Your task to perform on an android device: Find coffee shops on Maps Image 0: 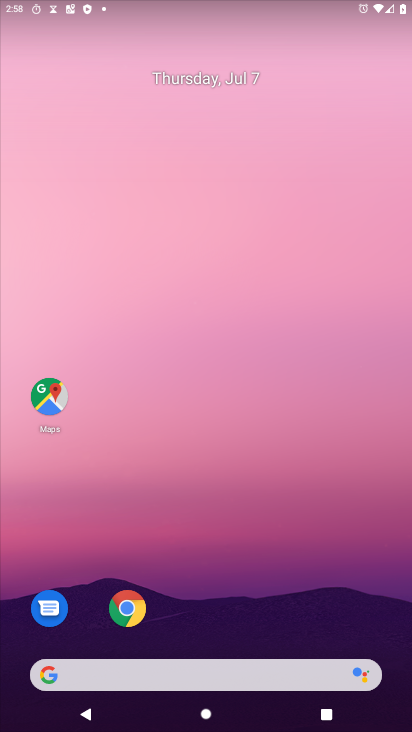
Step 0: drag from (260, 720) to (256, 85)
Your task to perform on an android device: Find coffee shops on Maps Image 1: 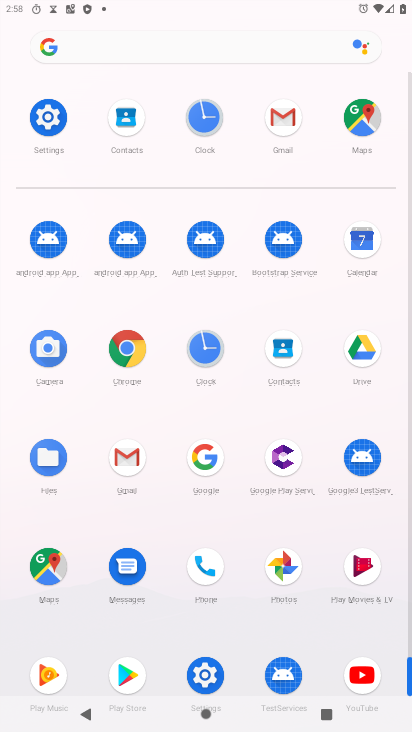
Step 1: click (43, 562)
Your task to perform on an android device: Find coffee shops on Maps Image 2: 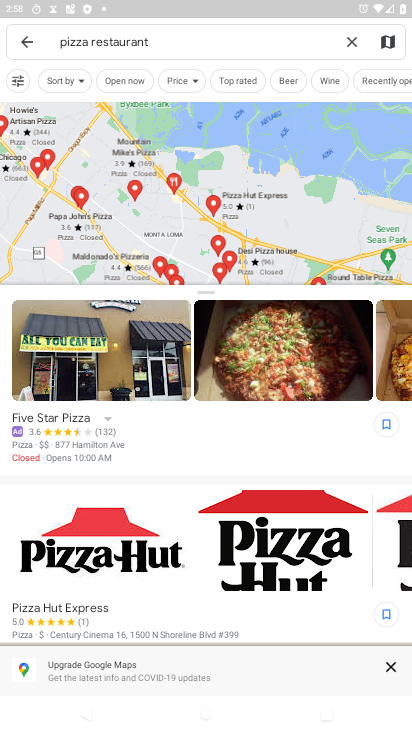
Step 2: click (347, 37)
Your task to perform on an android device: Find coffee shops on Maps Image 3: 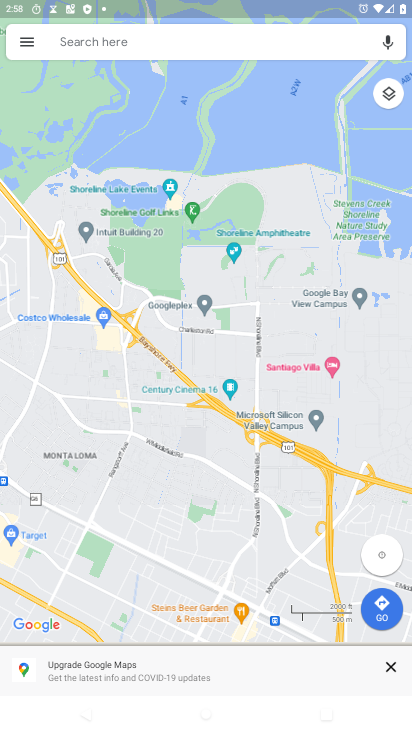
Step 3: click (190, 44)
Your task to perform on an android device: Find coffee shops on Maps Image 4: 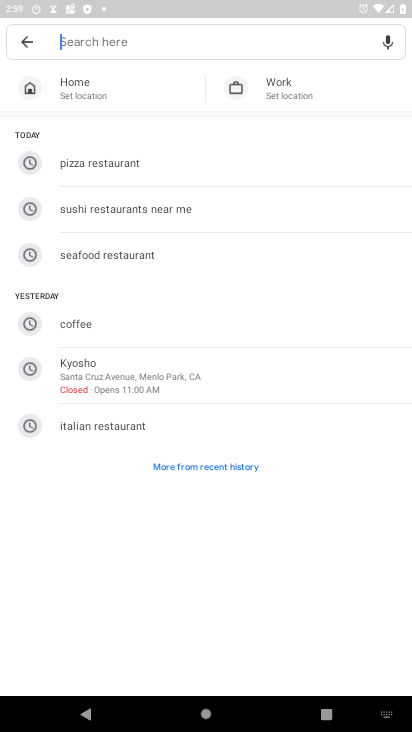
Step 4: type "coffee shops"
Your task to perform on an android device: Find coffee shops on Maps Image 5: 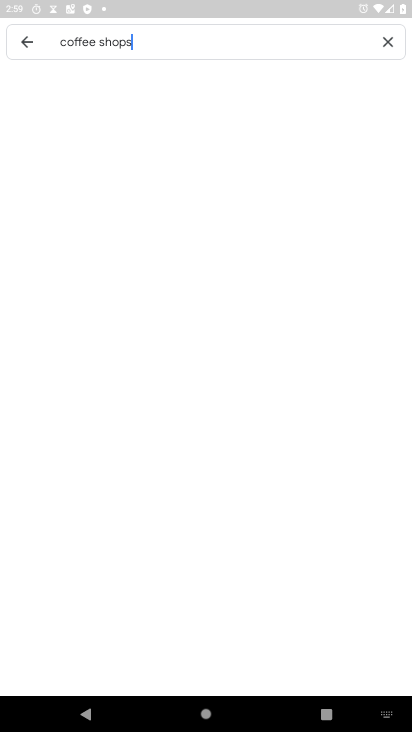
Step 5: type ""
Your task to perform on an android device: Find coffee shops on Maps Image 6: 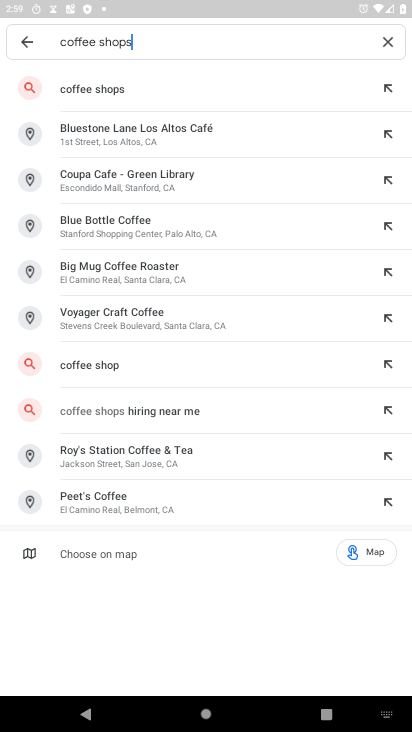
Step 6: click (110, 88)
Your task to perform on an android device: Find coffee shops on Maps Image 7: 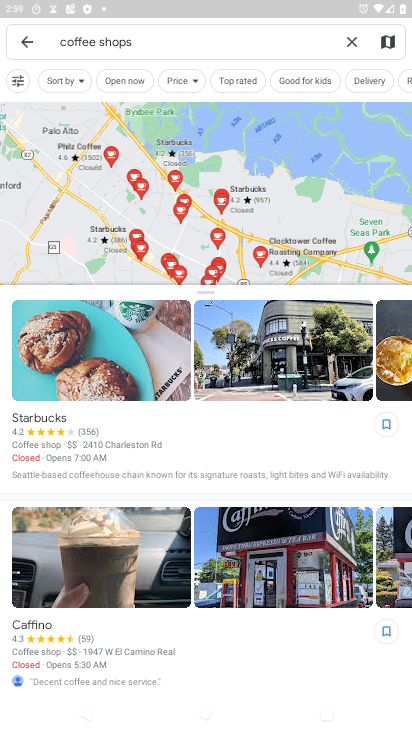
Step 7: task complete